Your task to perform on an android device: change keyboard looks Image 0: 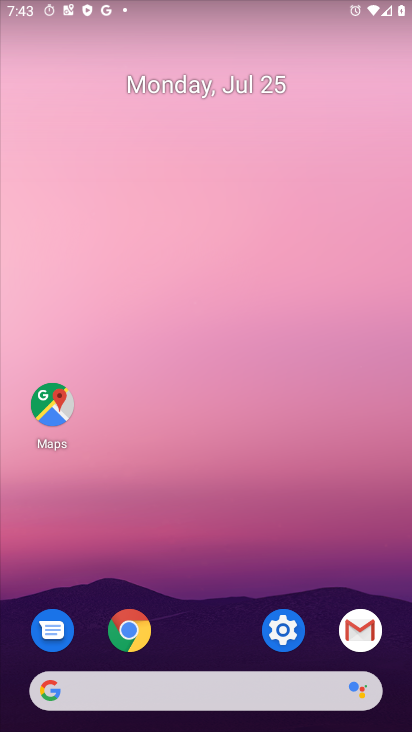
Step 0: click (272, 641)
Your task to perform on an android device: change keyboard looks Image 1: 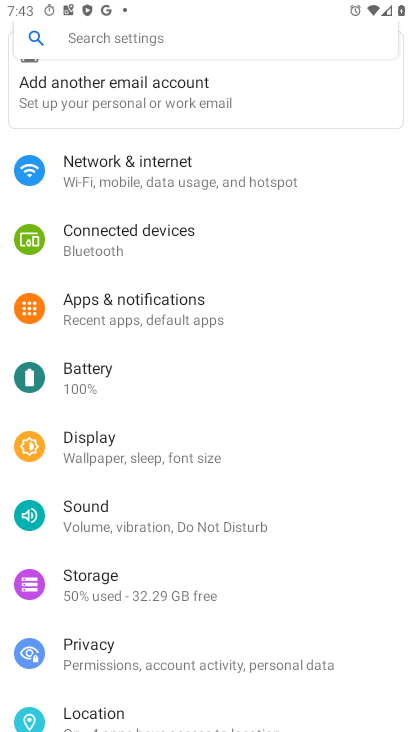
Step 1: click (105, 43)
Your task to perform on an android device: change keyboard looks Image 2: 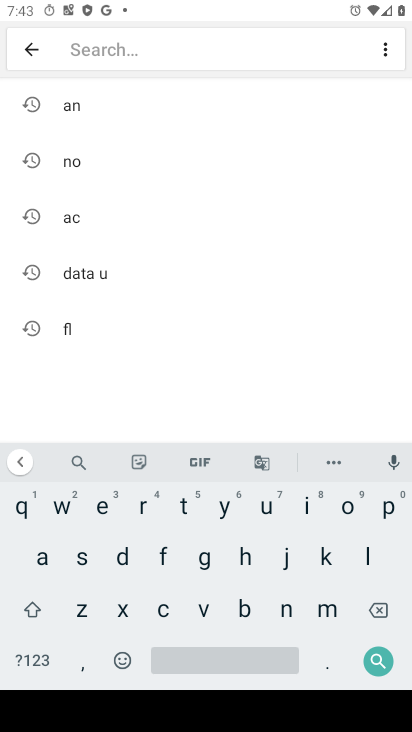
Step 2: click (333, 560)
Your task to perform on an android device: change keyboard looks Image 3: 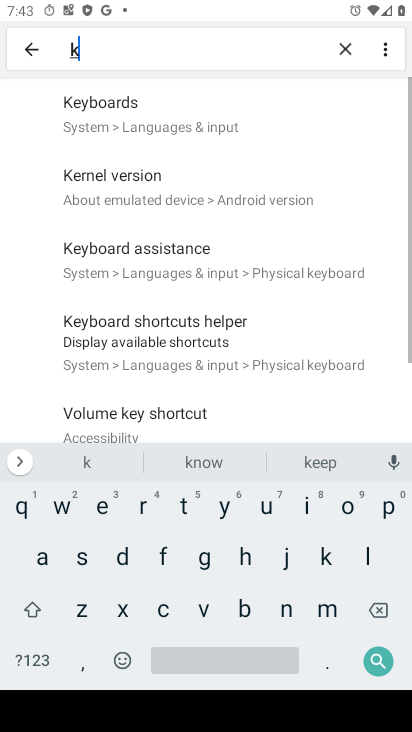
Step 3: click (137, 117)
Your task to perform on an android device: change keyboard looks Image 4: 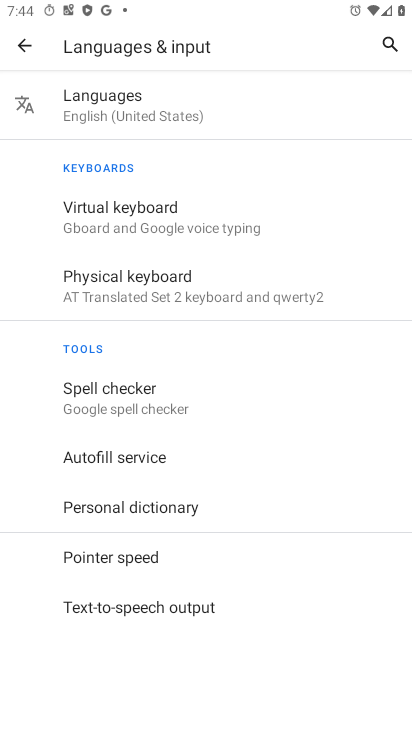
Step 4: click (123, 209)
Your task to perform on an android device: change keyboard looks Image 5: 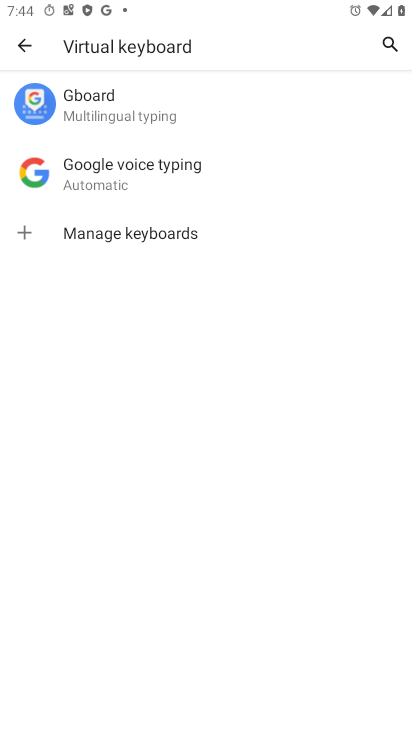
Step 5: click (105, 98)
Your task to perform on an android device: change keyboard looks Image 6: 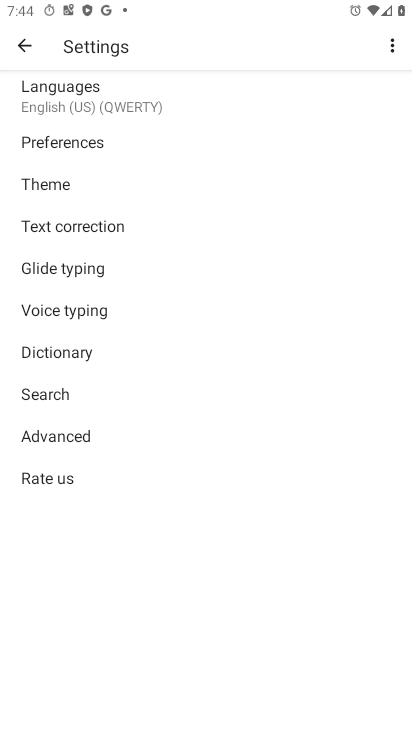
Step 6: click (40, 190)
Your task to perform on an android device: change keyboard looks Image 7: 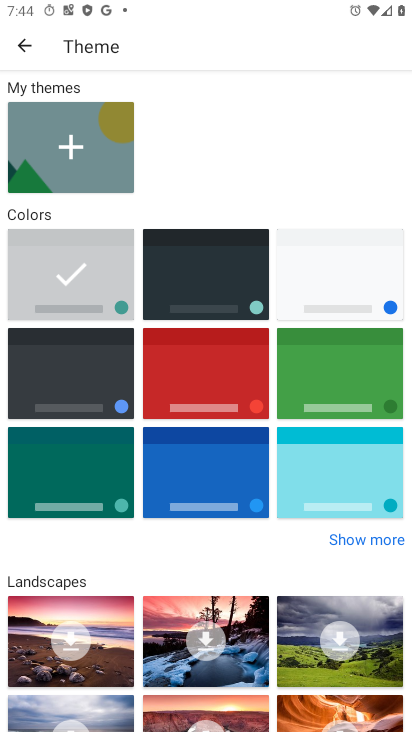
Step 7: click (185, 302)
Your task to perform on an android device: change keyboard looks Image 8: 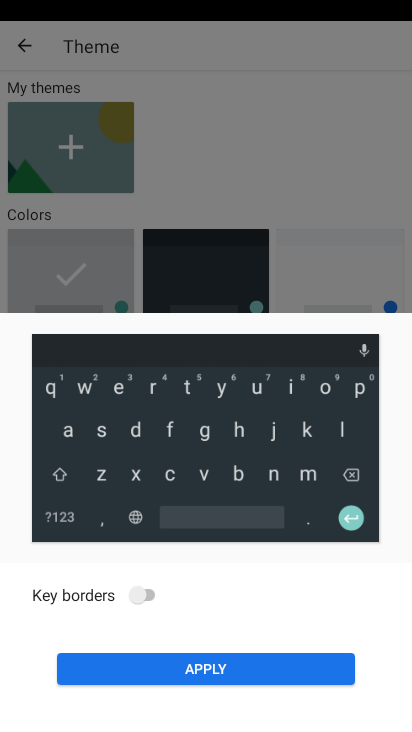
Step 8: click (145, 594)
Your task to perform on an android device: change keyboard looks Image 9: 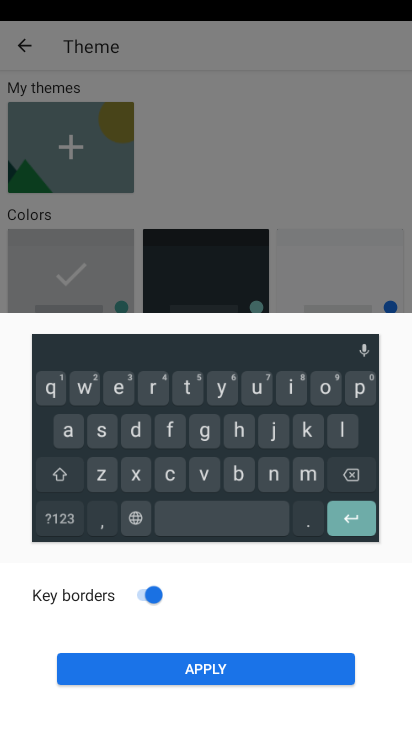
Step 9: click (174, 679)
Your task to perform on an android device: change keyboard looks Image 10: 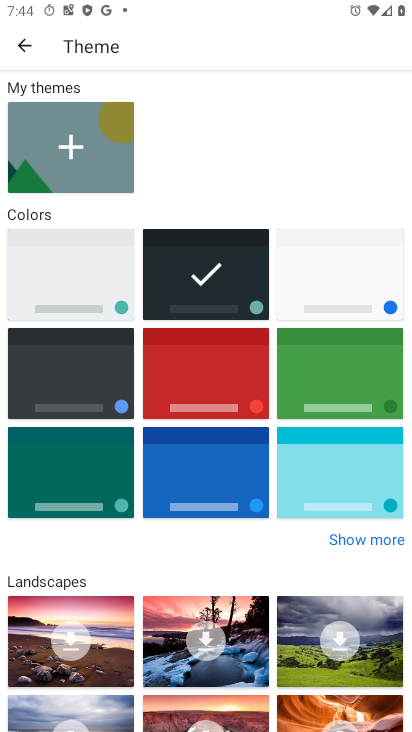
Step 10: task complete